Your task to perform on an android device: Go to accessibility settings Image 0: 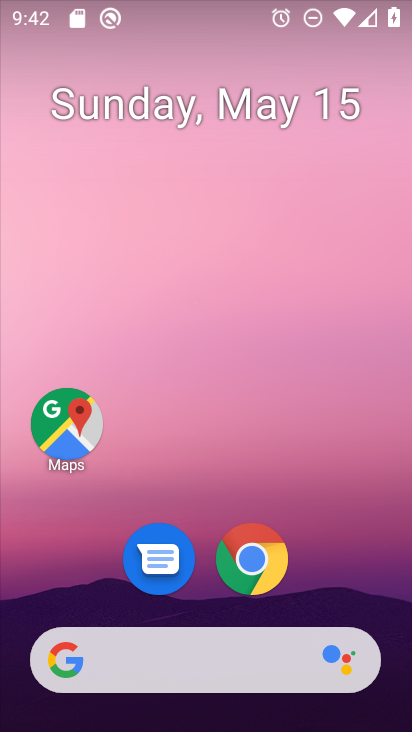
Step 0: drag from (345, 568) to (354, 230)
Your task to perform on an android device: Go to accessibility settings Image 1: 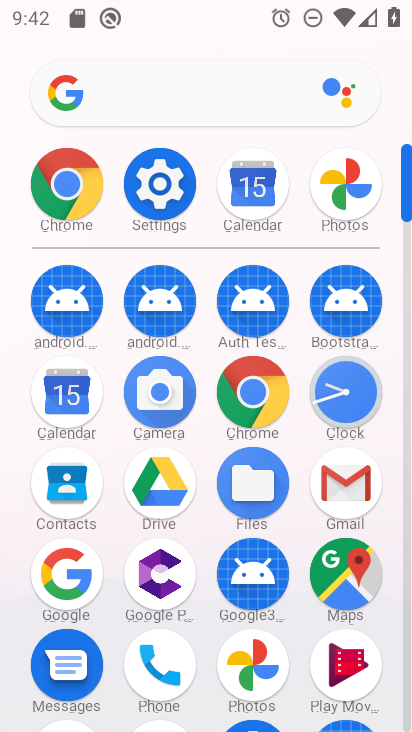
Step 1: click (133, 189)
Your task to perform on an android device: Go to accessibility settings Image 2: 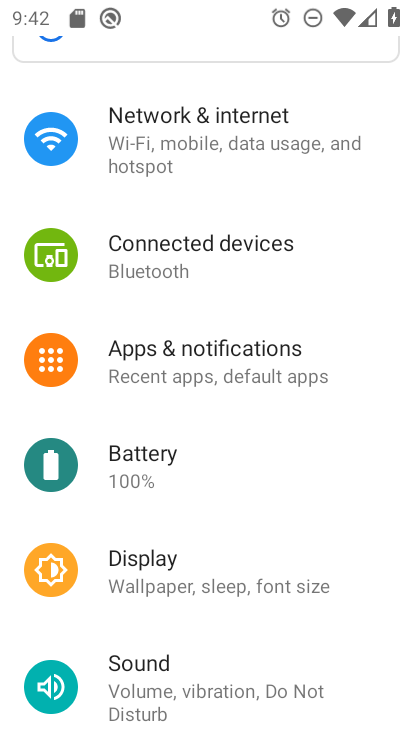
Step 2: drag from (187, 557) to (209, 232)
Your task to perform on an android device: Go to accessibility settings Image 3: 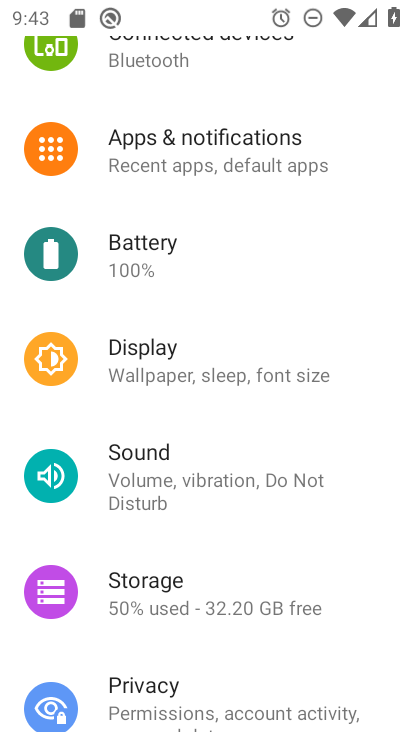
Step 3: drag from (206, 640) to (238, 382)
Your task to perform on an android device: Go to accessibility settings Image 4: 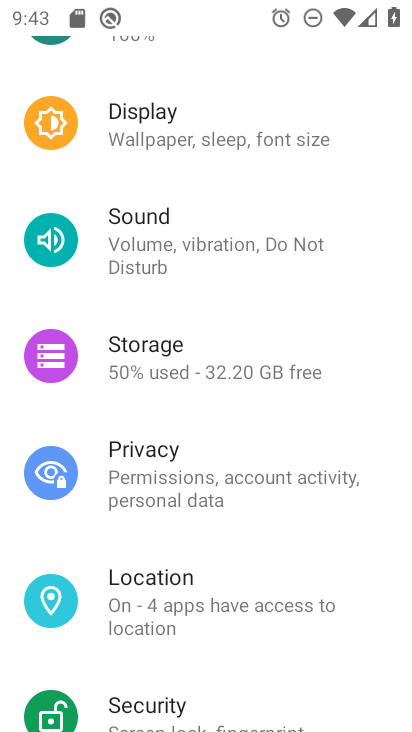
Step 4: drag from (245, 654) to (267, 336)
Your task to perform on an android device: Go to accessibility settings Image 5: 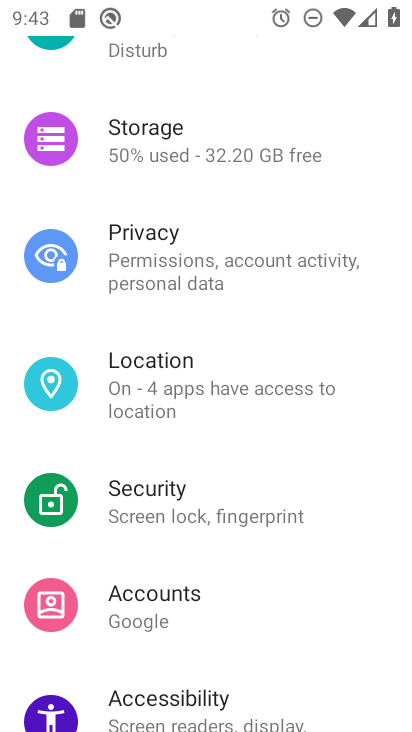
Step 5: click (200, 692)
Your task to perform on an android device: Go to accessibility settings Image 6: 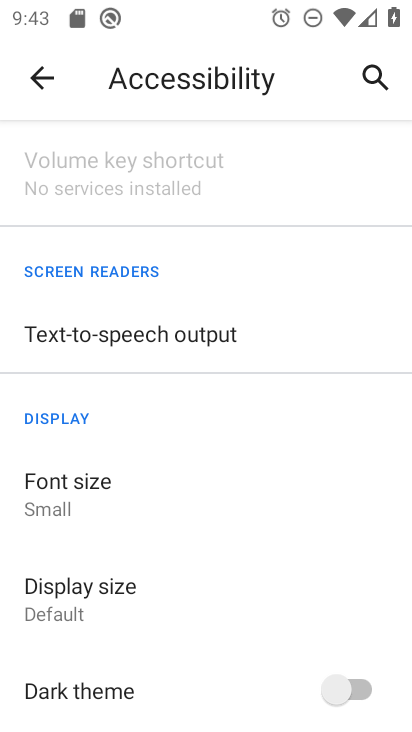
Step 6: task complete